Your task to perform on an android device: Open Google Maps and go to "Timeline" Image 0: 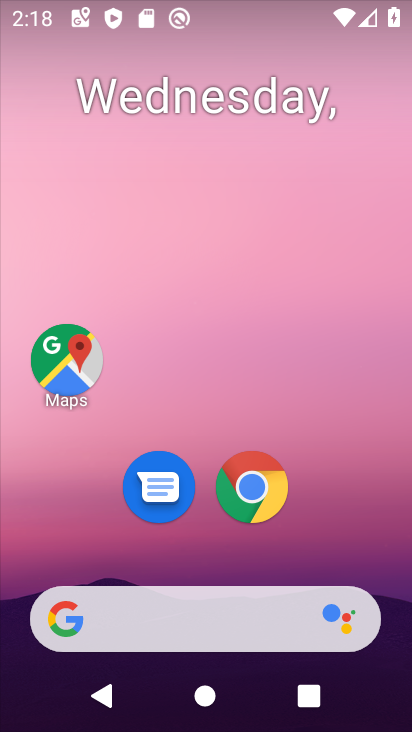
Step 0: click (72, 363)
Your task to perform on an android device: Open Google Maps and go to "Timeline" Image 1: 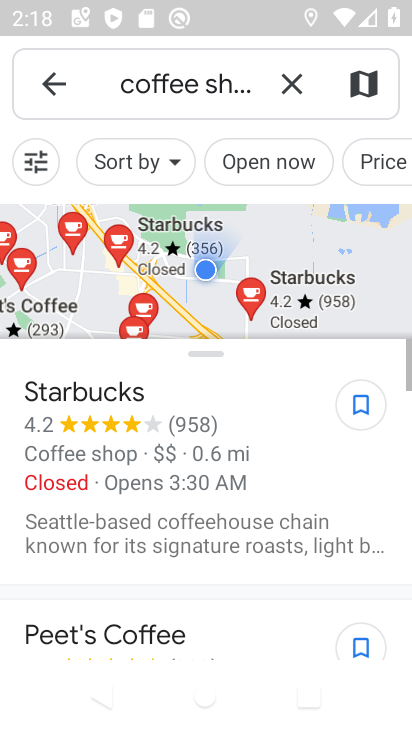
Step 1: click (56, 90)
Your task to perform on an android device: Open Google Maps and go to "Timeline" Image 2: 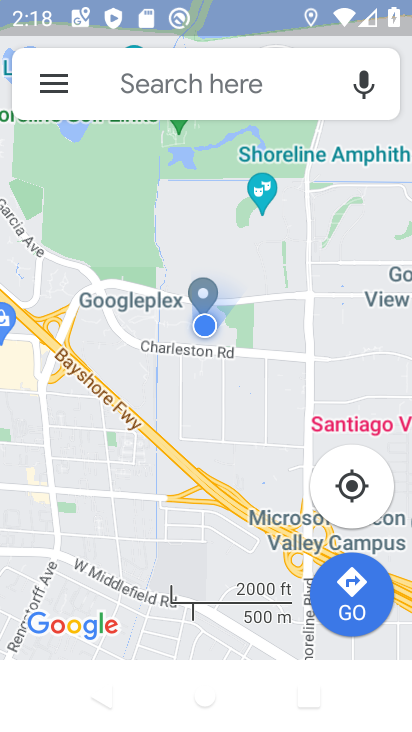
Step 2: click (53, 65)
Your task to perform on an android device: Open Google Maps and go to "Timeline" Image 3: 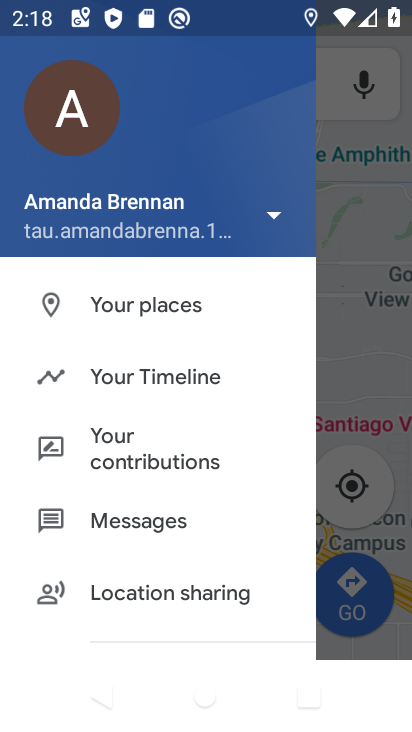
Step 3: click (117, 371)
Your task to perform on an android device: Open Google Maps and go to "Timeline" Image 4: 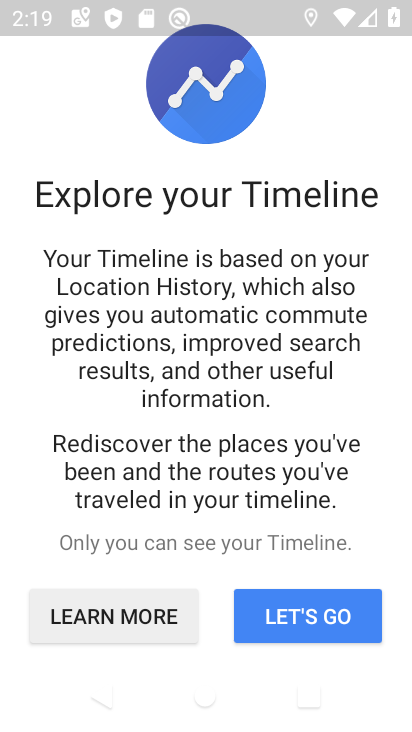
Step 4: task complete